Your task to perform on an android device: delete browsing data in the chrome app Image 0: 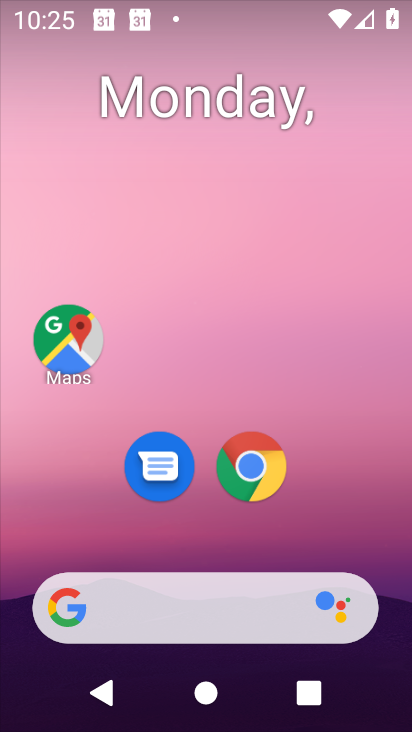
Step 0: drag from (346, 563) to (184, 78)
Your task to perform on an android device: delete browsing data in the chrome app Image 1: 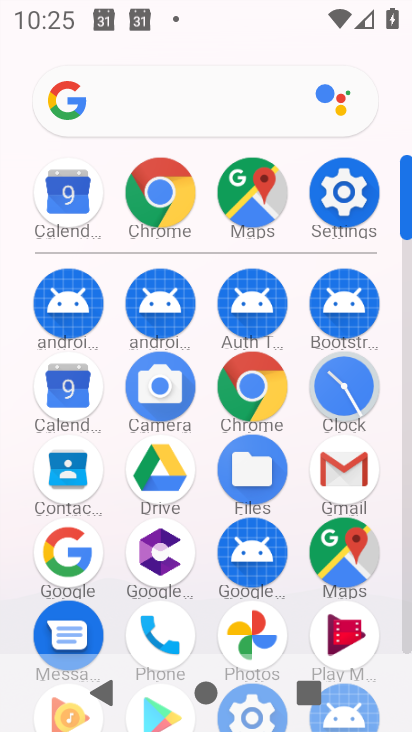
Step 1: click (159, 163)
Your task to perform on an android device: delete browsing data in the chrome app Image 2: 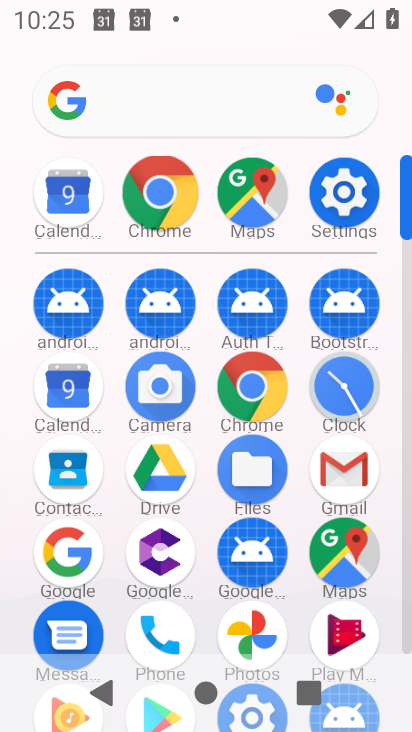
Step 2: click (162, 170)
Your task to perform on an android device: delete browsing data in the chrome app Image 3: 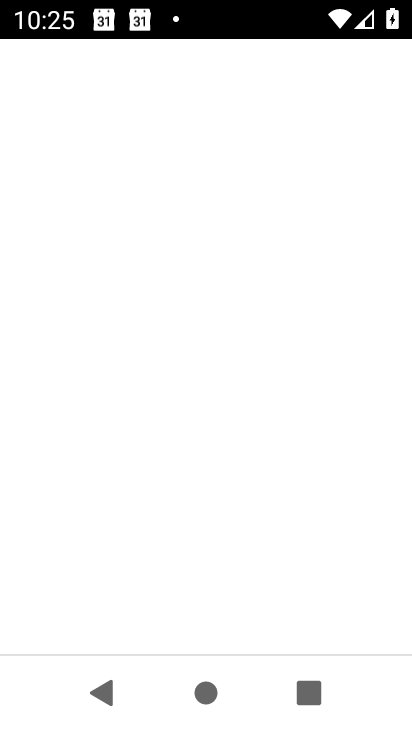
Step 3: click (163, 180)
Your task to perform on an android device: delete browsing data in the chrome app Image 4: 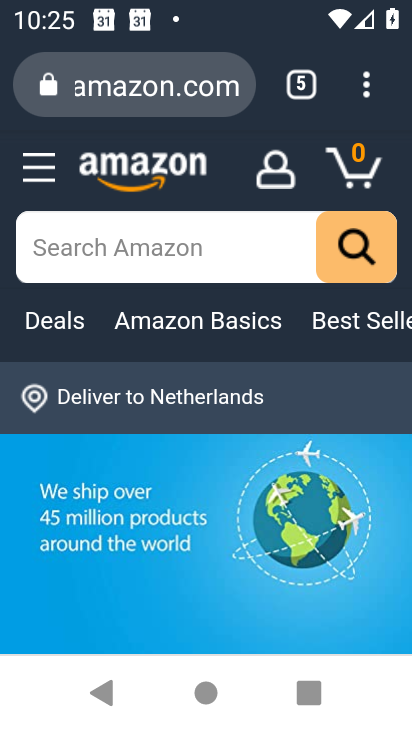
Step 4: drag from (362, 84) to (99, 426)
Your task to perform on an android device: delete browsing data in the chrome app Image 5: 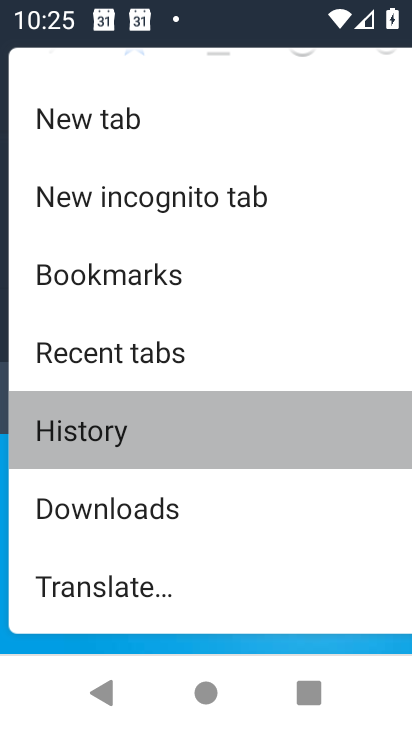
Step 5: click (99, 426)
Your task to perform on an android device: delete browsing data in the chrome app Image 6: 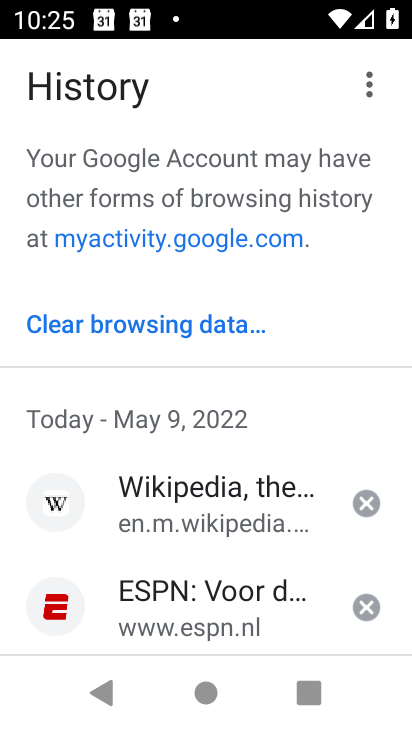
Step 6: click (363, 497)
Your task to perform on an android device: delete browsing data in the chrome app Image 7: 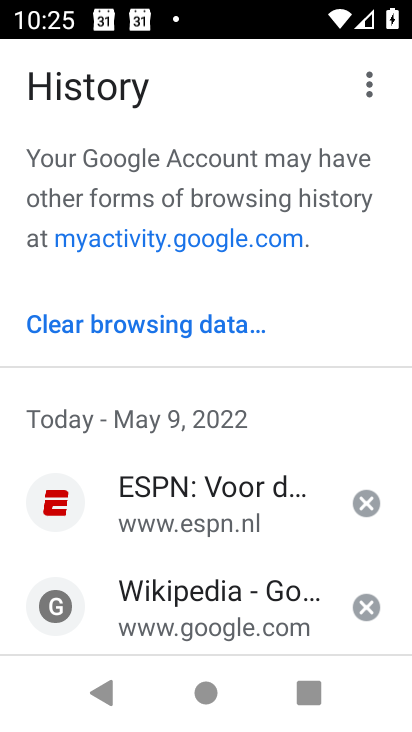
Step 7: task complete